Your task to perform on an android device: Go to Reddit.com Image 0: 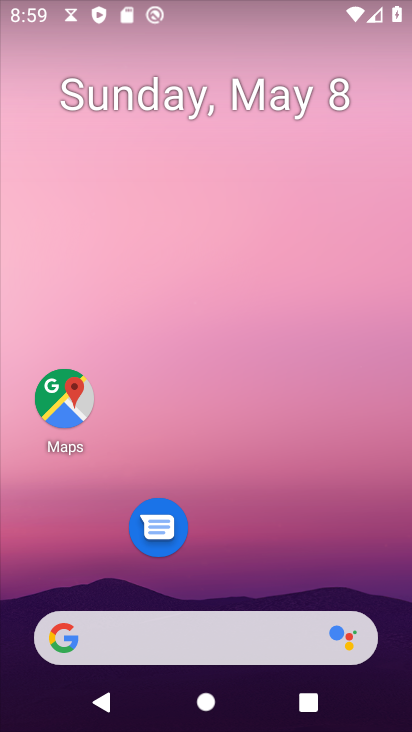
Step 0: drag from (253, 518) to (203, 29)
Your task to perform on an android device: Go to Reddit.com Image 1: 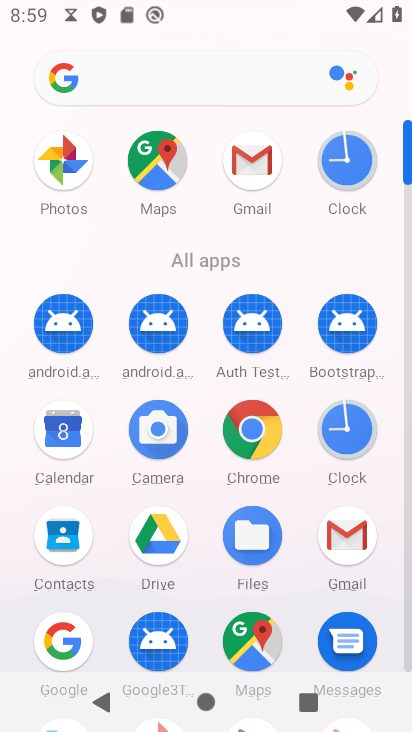
Step 1: click (252, 433)
Your task to perform on an android device: Go to Reddit.com Image 2: 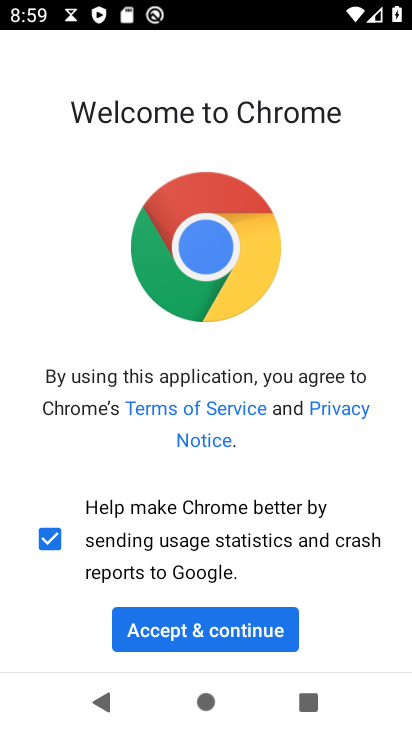
Step 2: click (214, 631)
Your task to perform on an android device: Go to Reddit.com Image 3: 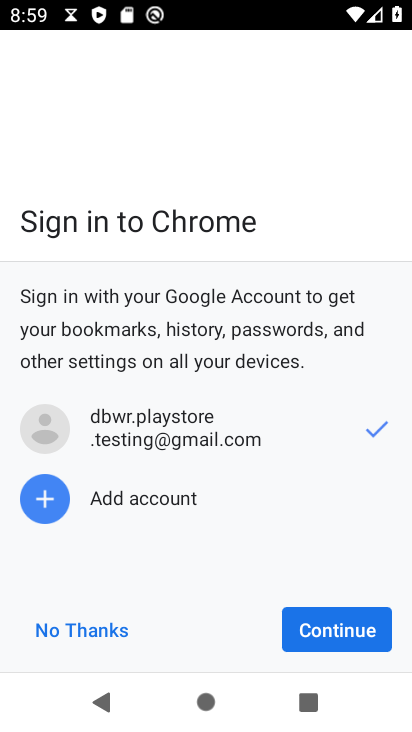
Step 3: click (318, 618)
Your task to perform on an android device: Go to Reddit.com Image 4: 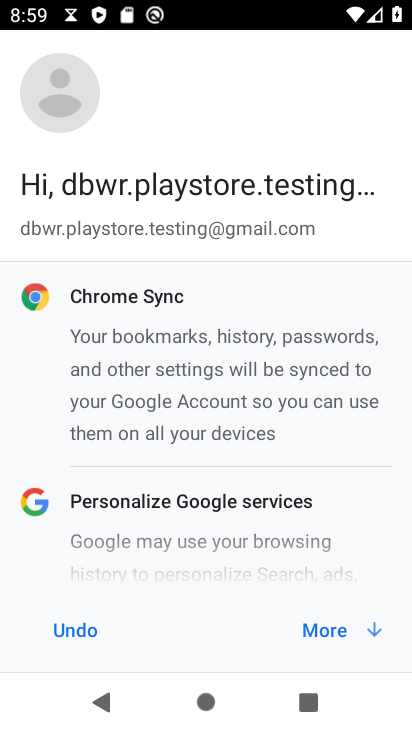
Step 4: click (319, 627)
Your task to perform on an android device: Go to Reddit.com Image 5: 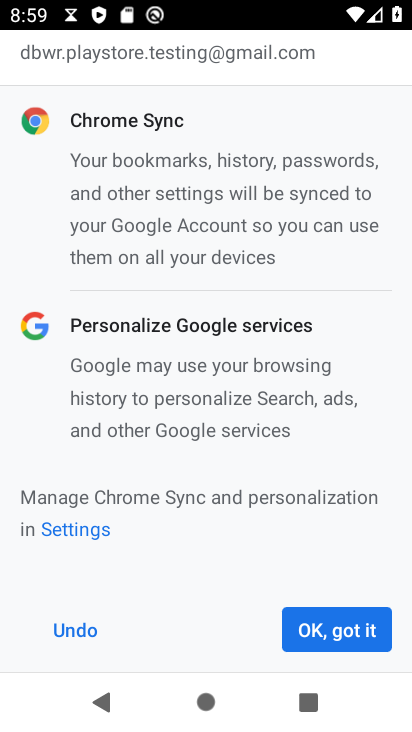
Step 5: click (319, 627)
Your task to perform on an android device: Go to Reddit.com Image 6: 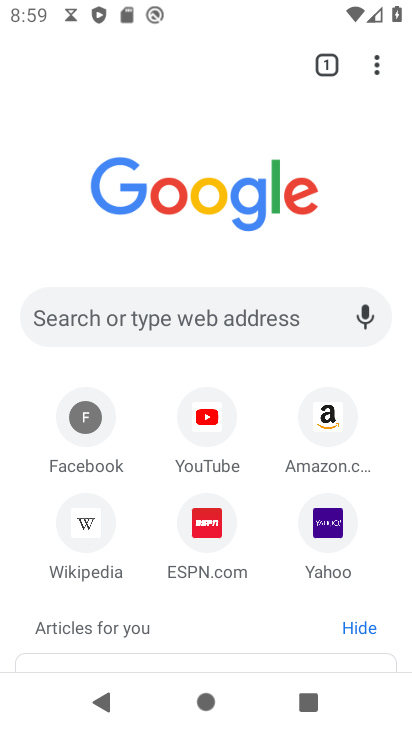
Step 6: click (213, 330)
Your task to perform on an android device: Go to Reddit.com Image 7: 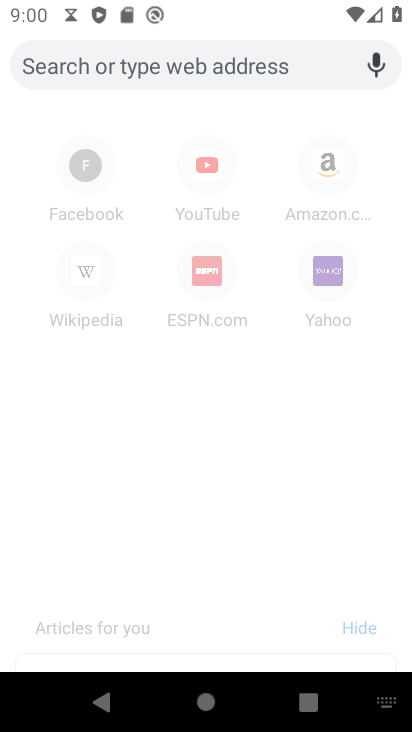
Step 7: type "Reddit.com"
Your task to perform on an android device: Go to Reddit.com Image 8: 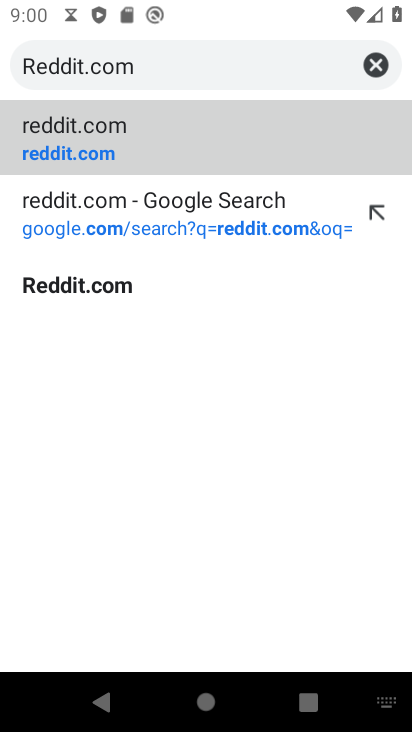
Step 8: click (97, 293)
Your task to perform on an android device: Go to Reddit.com Image 9: 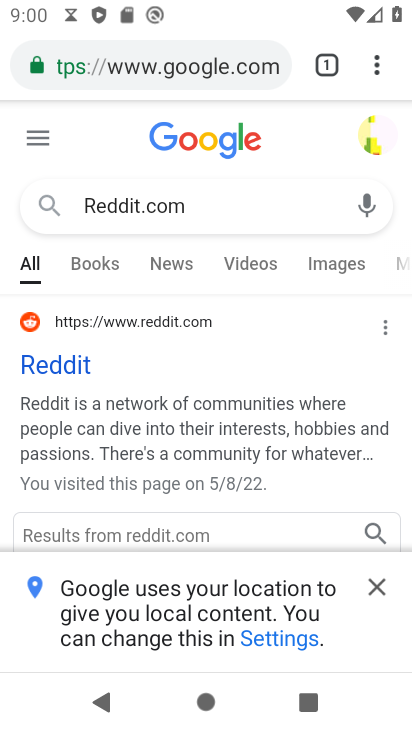
Step 9: click (371, 589)
Your task to perform on an android device: Go to Reddit.com Image 10: 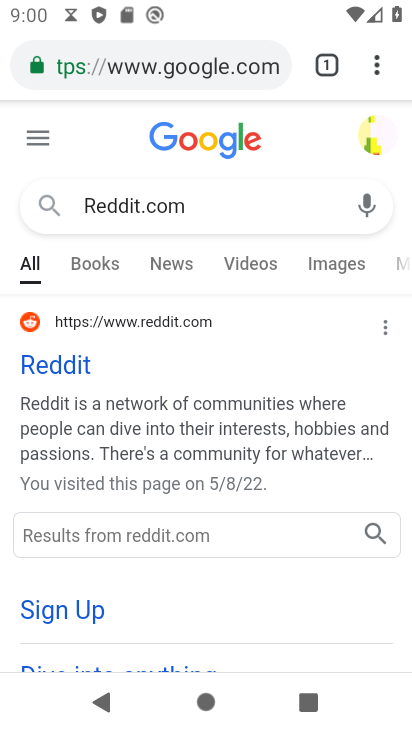
Step 10: click (37, 358)
Your task to perform on an android device: Go to Reddit.com Image 11: 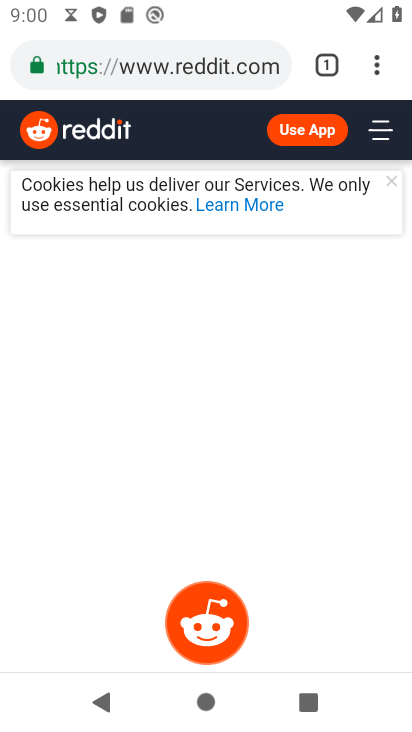
Step 11: task complete